Your task to perform on an android device: Open Reddit.com Image 0: 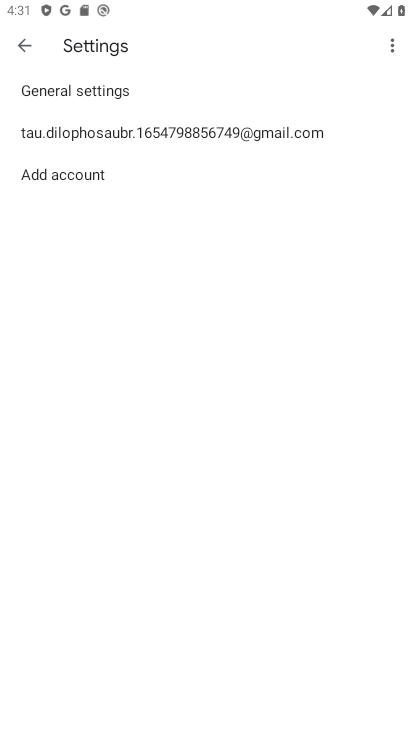
Step 0: press home button
Your task to perform on an android device: Open Reddit.com Image 1: 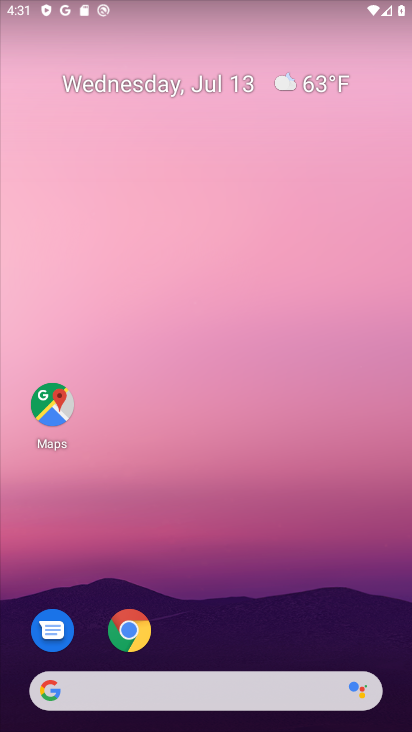
Step 1: drag from (237, 628) to (263, 56)
Your task to perform on an android device: Open Reddit.com Image 2: 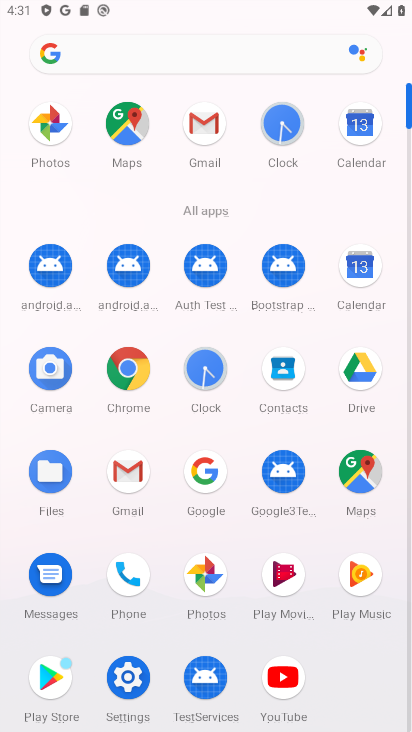
Step 2: click (136, 368)
Your task to perform on an android device: Open Reddit.com Image 3: 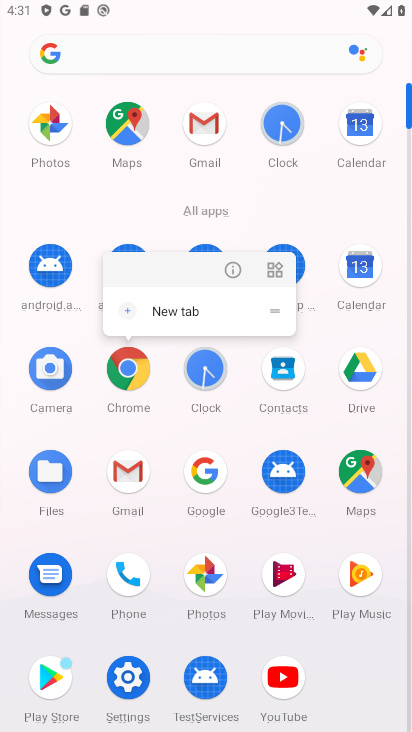
Step 3: click (124, 368)
Your task to perform on an android device: Open Reddit.com Image 4: 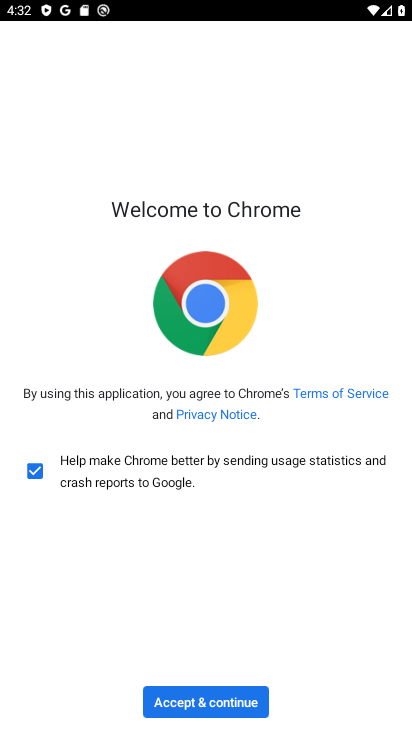
Step 4: click (211, 699)
Your task to perform on an android device: Open Reddit.com Image 5: 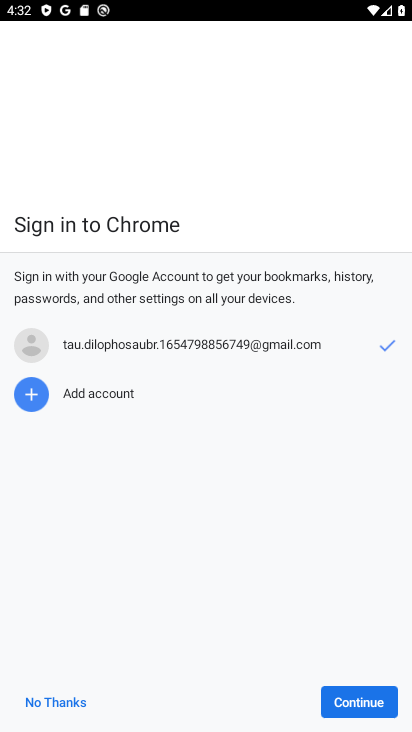
Step 5: click (381, 690)
Your task to perform on an android device: Open Reddit.com Image 6: 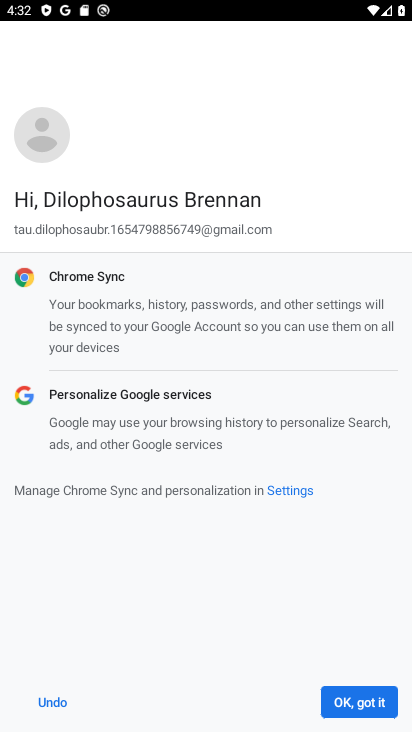
Step 6: click (358, 709)
Your task to perform on an android device: Open Reddit.com Image 7: 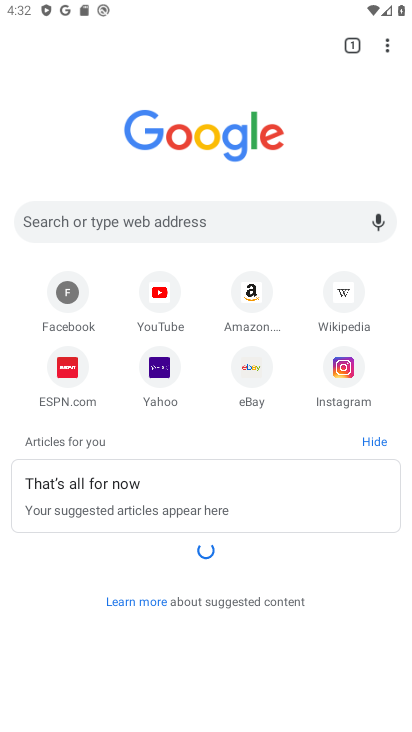
Step 7: click (108, 218)
Your task to perform on an android device: Open Reddit.com Image 8: 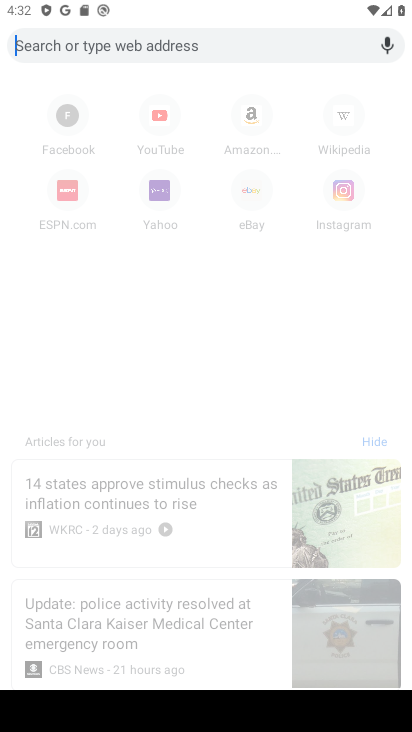
Step 8: type " Reddit.com"
Your task to perform on an android device: Open Reddit.com Image 9: 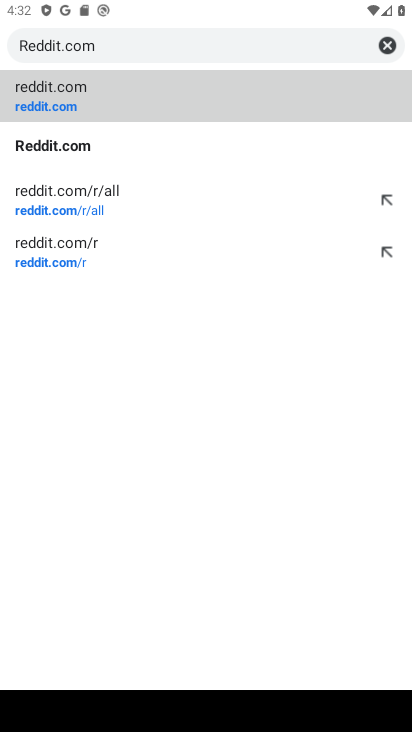
Step 9: click (37, 102)
Your task to perform on an android device: Open Reddit.com Image 10: 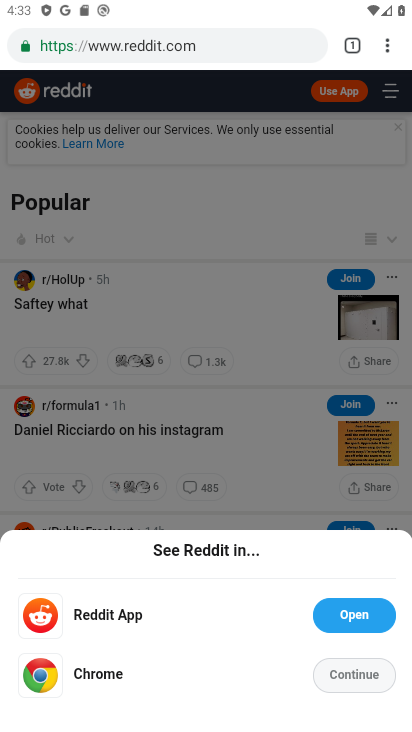
Step 10: task complete